Your task to perform on an android device: Open calendar and show me the third week of next month Image 0: 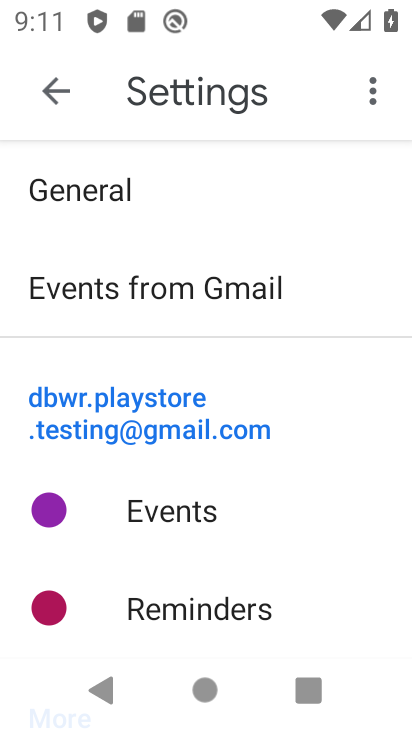
Step 0: press home button
Your task to perform on an android device: Open calendar and show me the third week of next month Image 1: 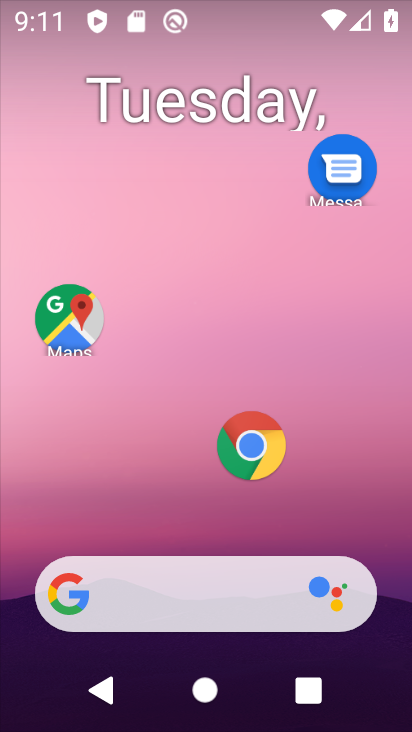
Step 1: drag from (42, 552) to (174, 256)
Your task to perform on an android device: Open calendar and show me the third week of next month Image 2: 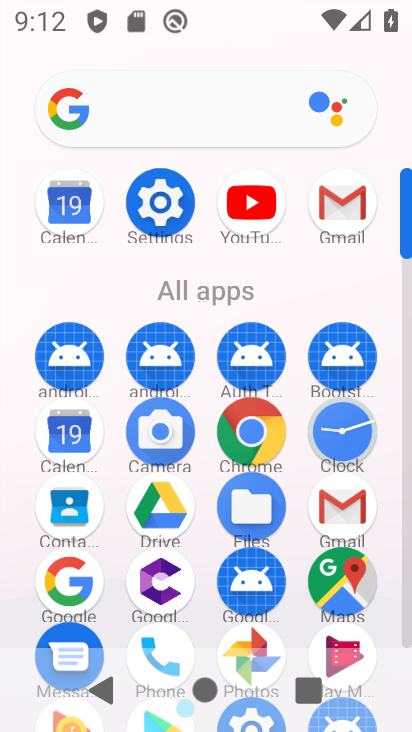
Step 2: click (60, 442)
Your task to perform on an android device: Open calendar and show me the third week of next month Image 3: 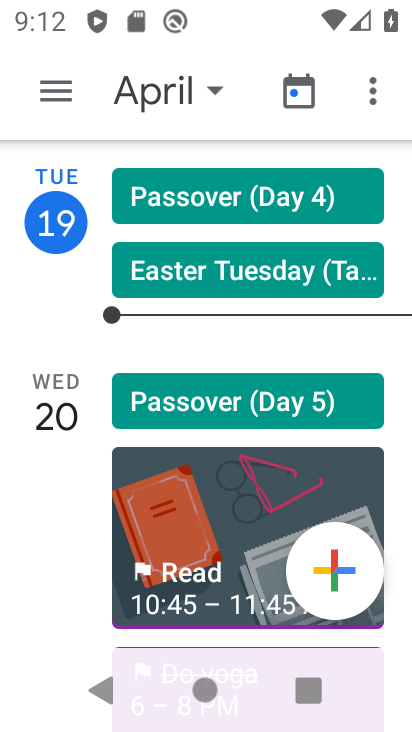
Step 3: click (220, 91)
Your task to perform on an android device: Open calendar and show me the third week of next month Image 4: 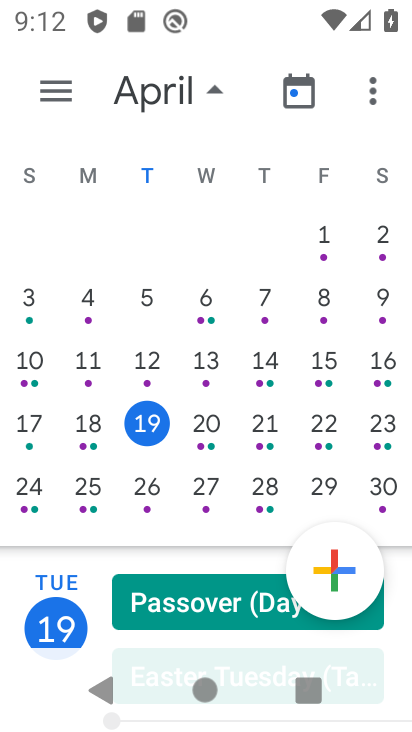
Step 4: drag from (361, 286) to (4, 262)
Your task to perform on an android device: Open calendar and show me the third week of next month Image 5: 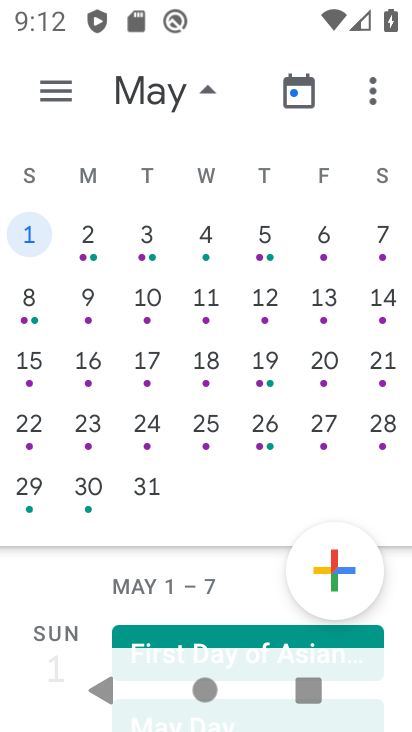
Step 5: click (91, 294)
Your task to perform on an android device: Open calendar and show me the third week of next month Image 6: 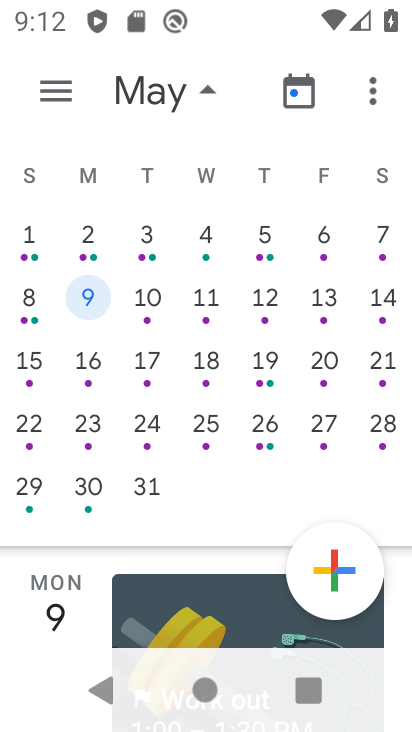
Step 6: click (141, 295)
Your task to perform on an android device: Open calendar and show me the third week of next month Image 7: 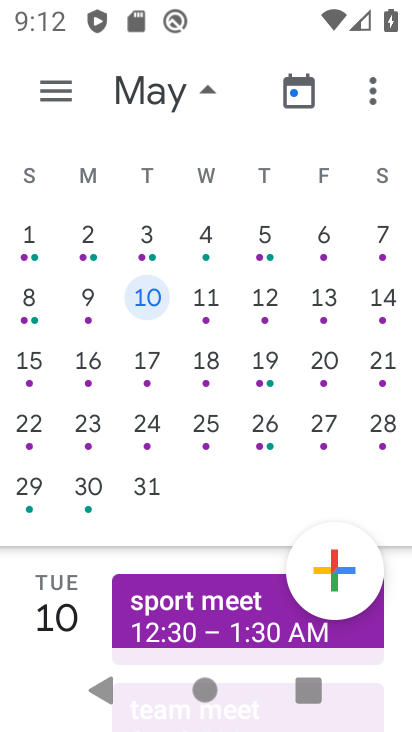
Step 7: click (197, 299)
Your task to perform on an android device: Open calendar and show me the third week of next month Image 8: 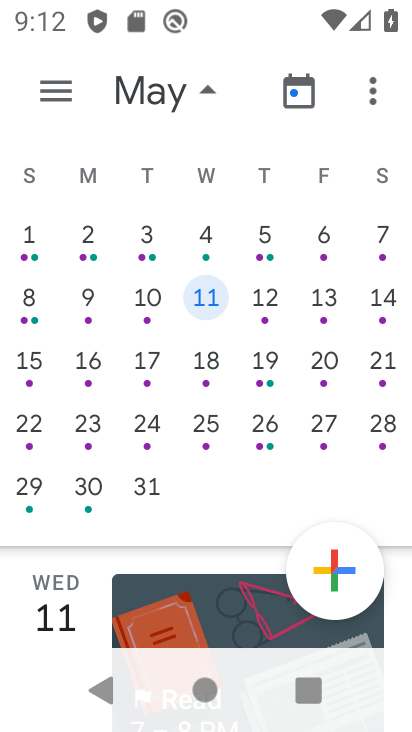
Step 8: click (19, 364)
Your task to perform on an android device: Open calendar and show me the third week of next month Image 9: 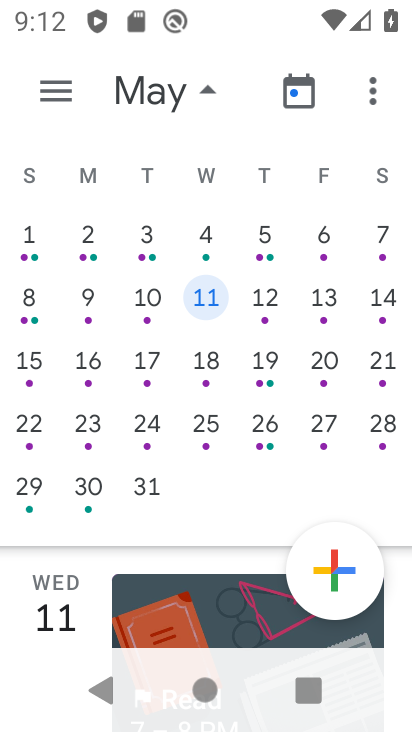
Step 9: click (90, 353)
Your task to perform on an android device: Open calendar and show me the third week of next month Image 10: 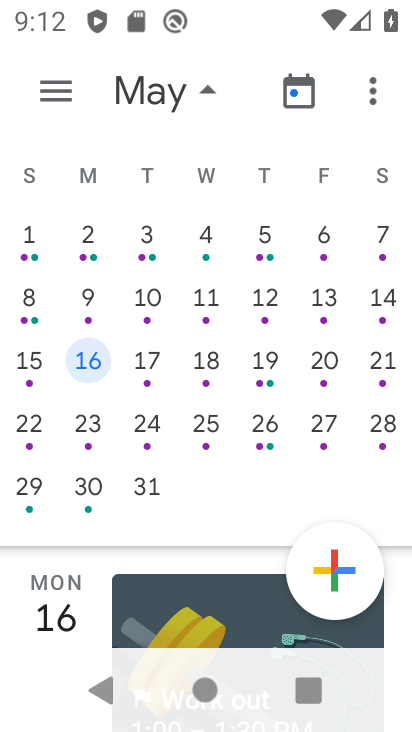
Step 10: click (140, 364)
Your task to perform on an android device: Open calendar and show me the third week of next month Image 11: 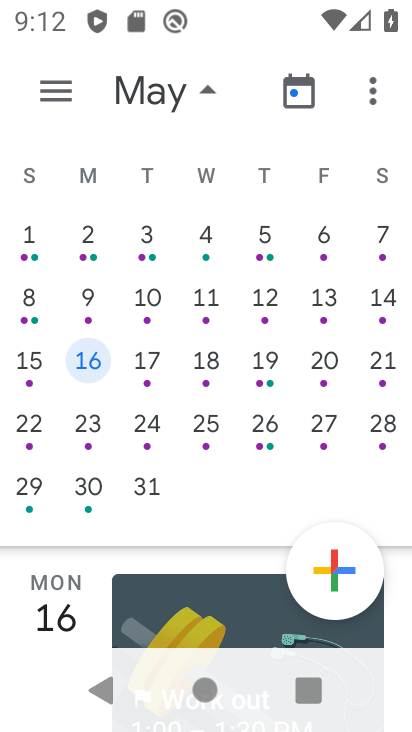
Step 11: click (236, 364)
Your task to perform on an android device: Open calendar and show me the third week of next month Image 12: 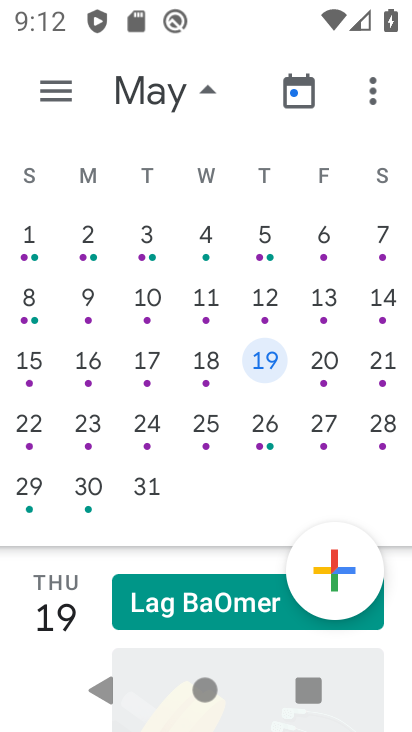
Step 12: click (224, 366)
Your task to perform on an android device: Open calendar and show me the third week of next month Image 13: 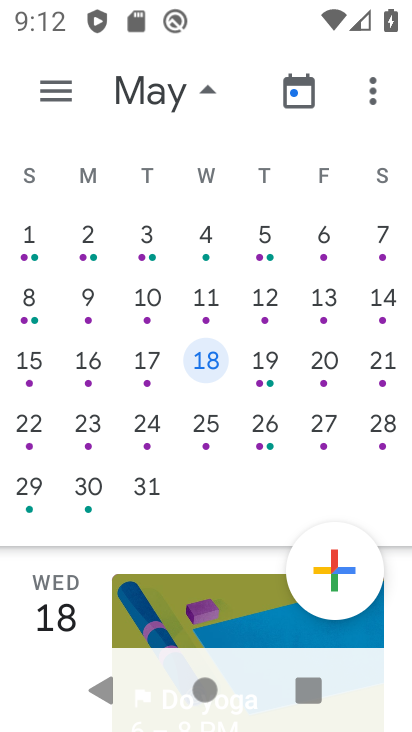
Step 13: task complete